Your task to perform on an android device: turn off notifications settings in the gmail app Image 0: 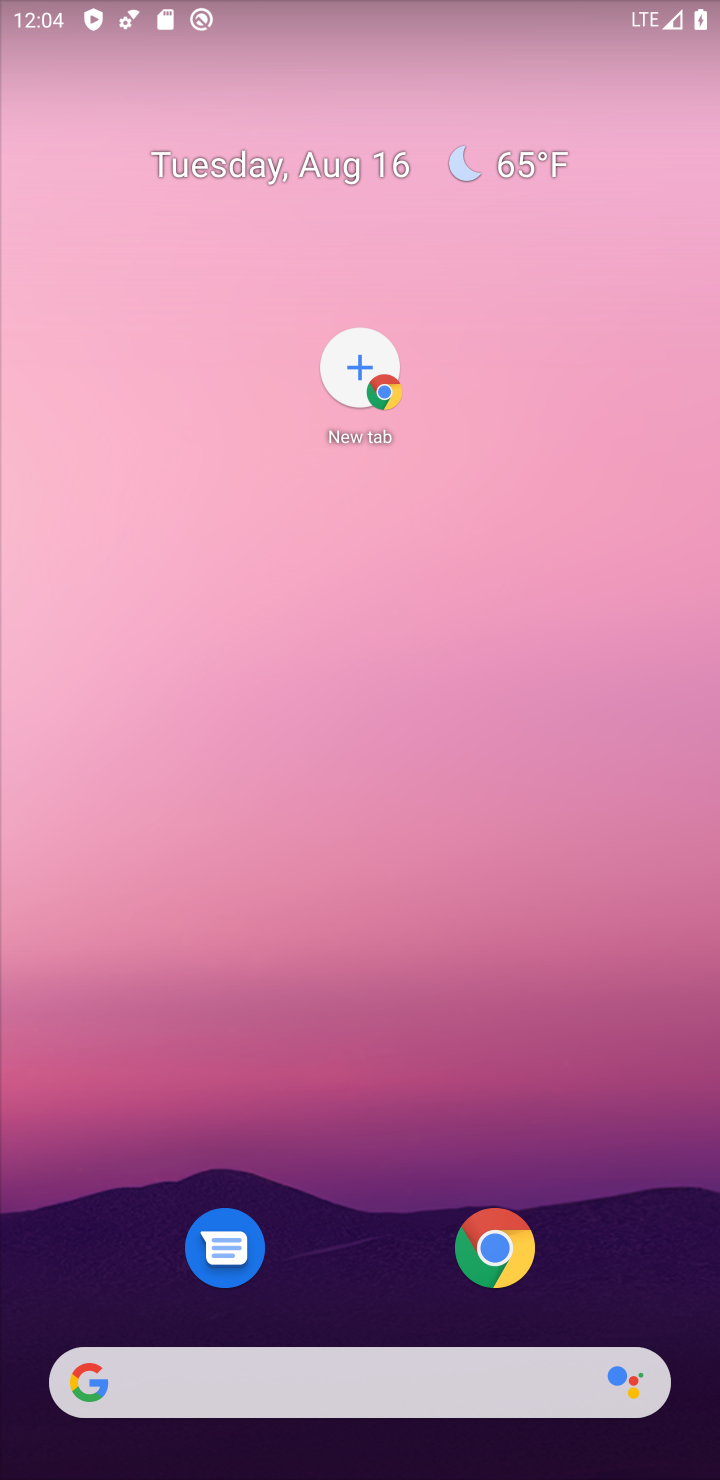
Step 0: click (685, 89)
Your task to perform on an android device: turn off notifications settings in the gmail app Image 1: 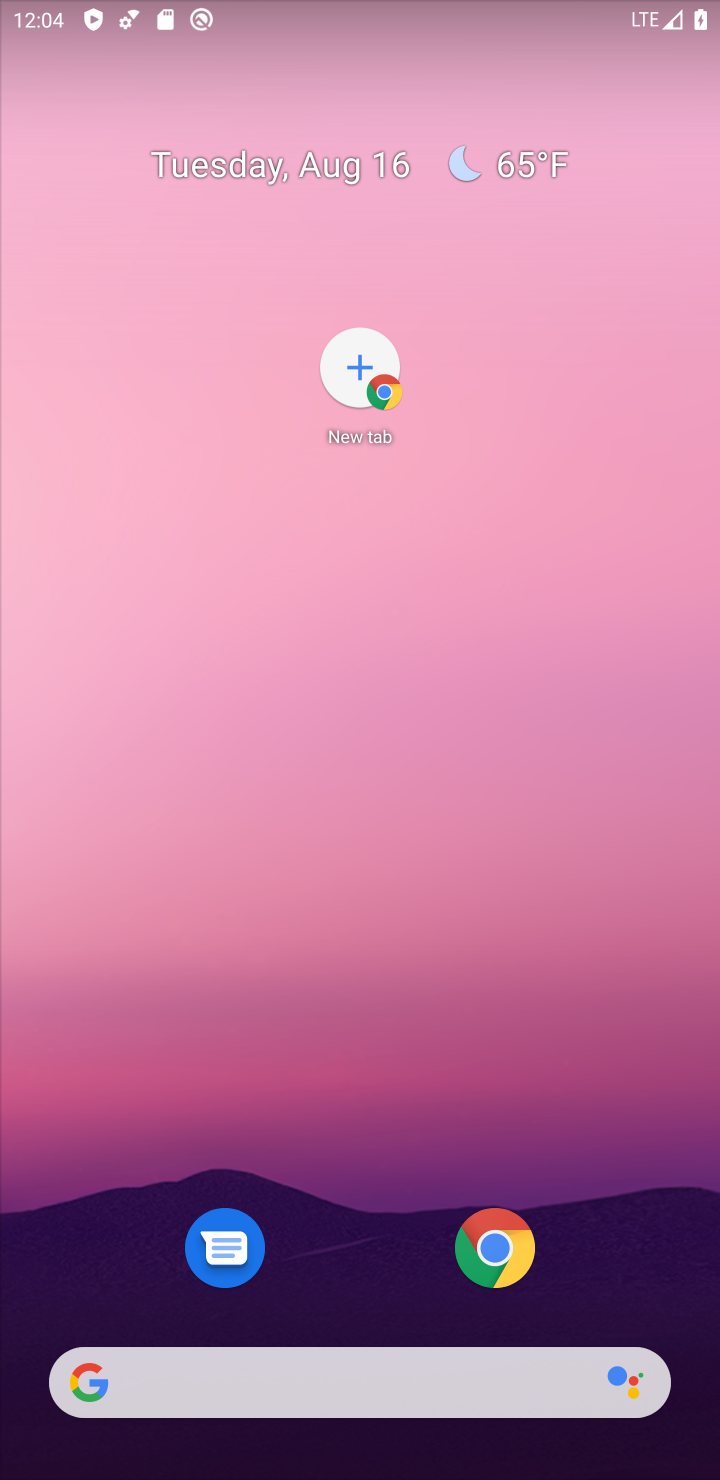
Step 1: click (494, 1281)
Your task to perform on an android device: turn off notifications settings in the gmail app Image 2: 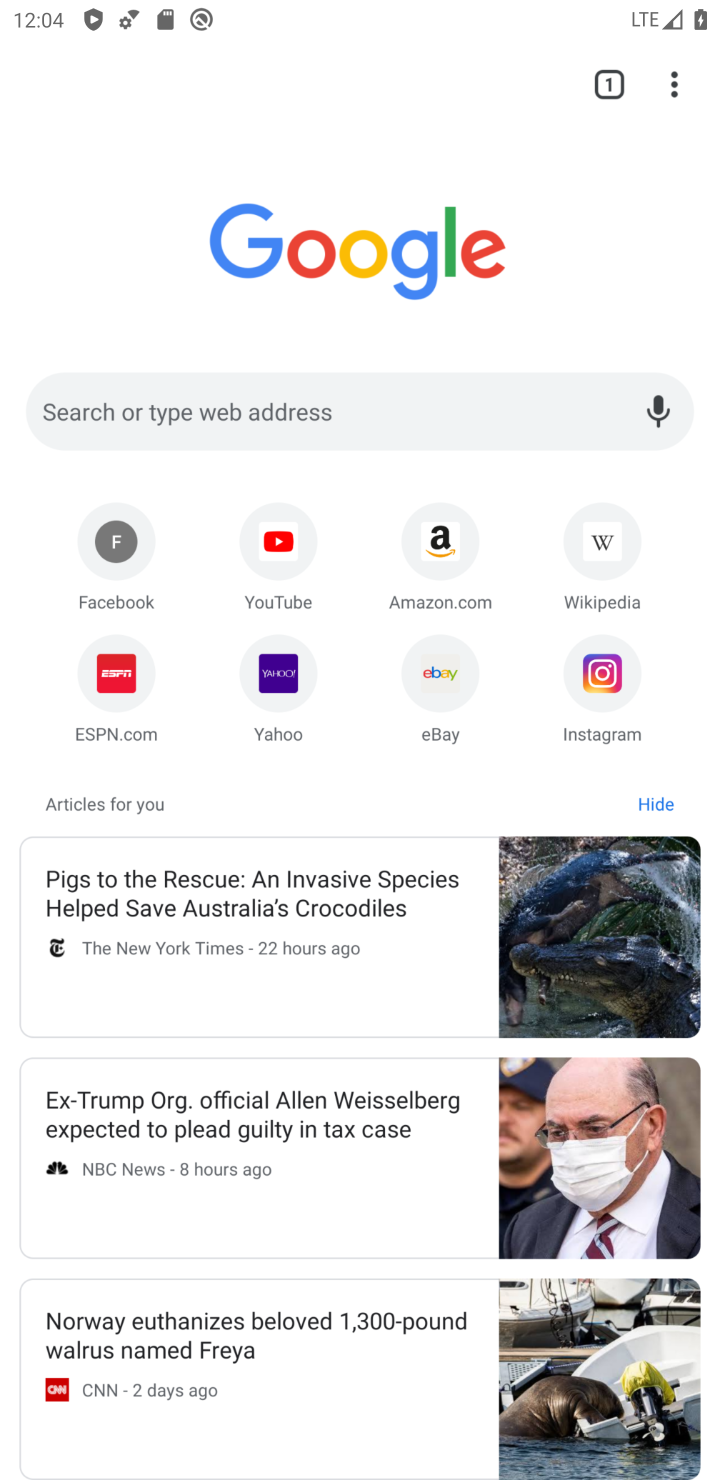
Step 2: press home button
Your task to perform on an android device: turn off notifications settings in the gmail app Image 3: 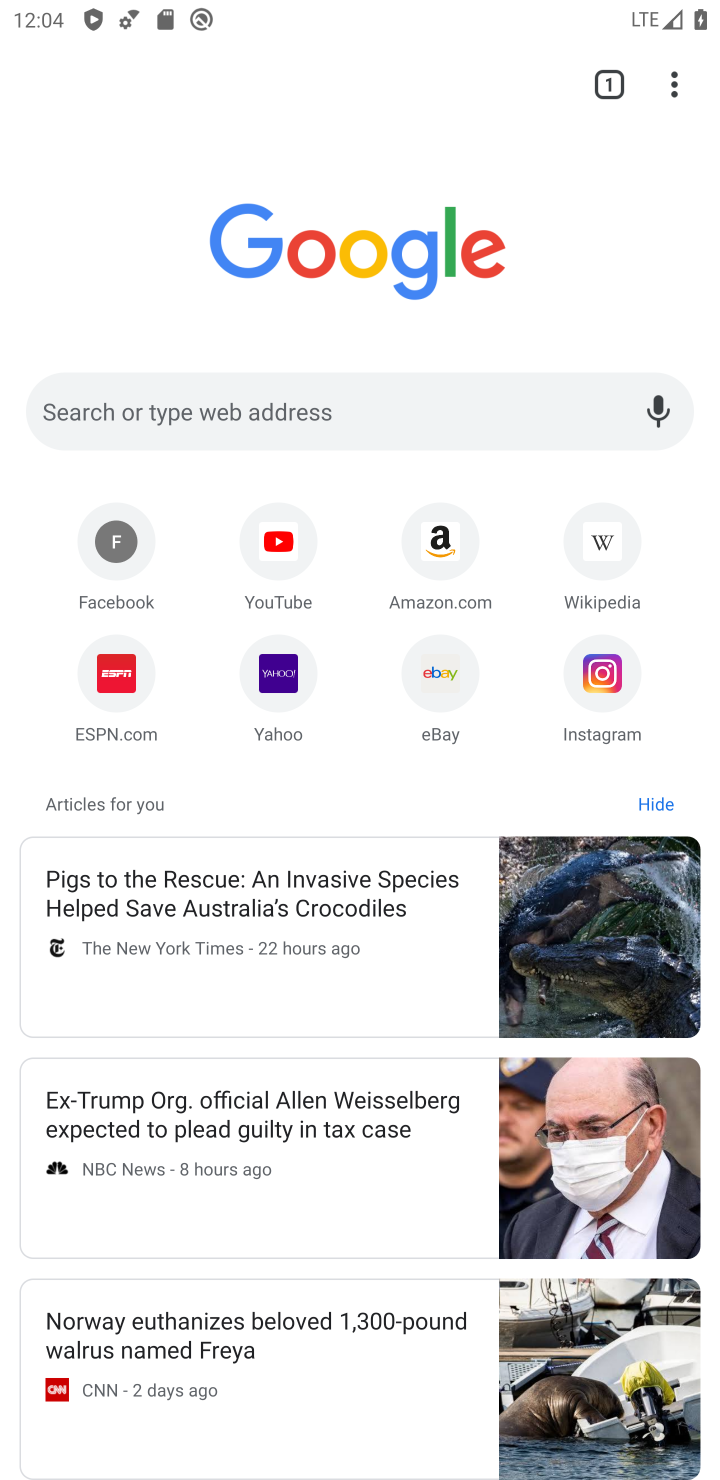
Step 3: press home button
Your task to perform on an android device: turn off notifications settings in the gmail app Image 4: 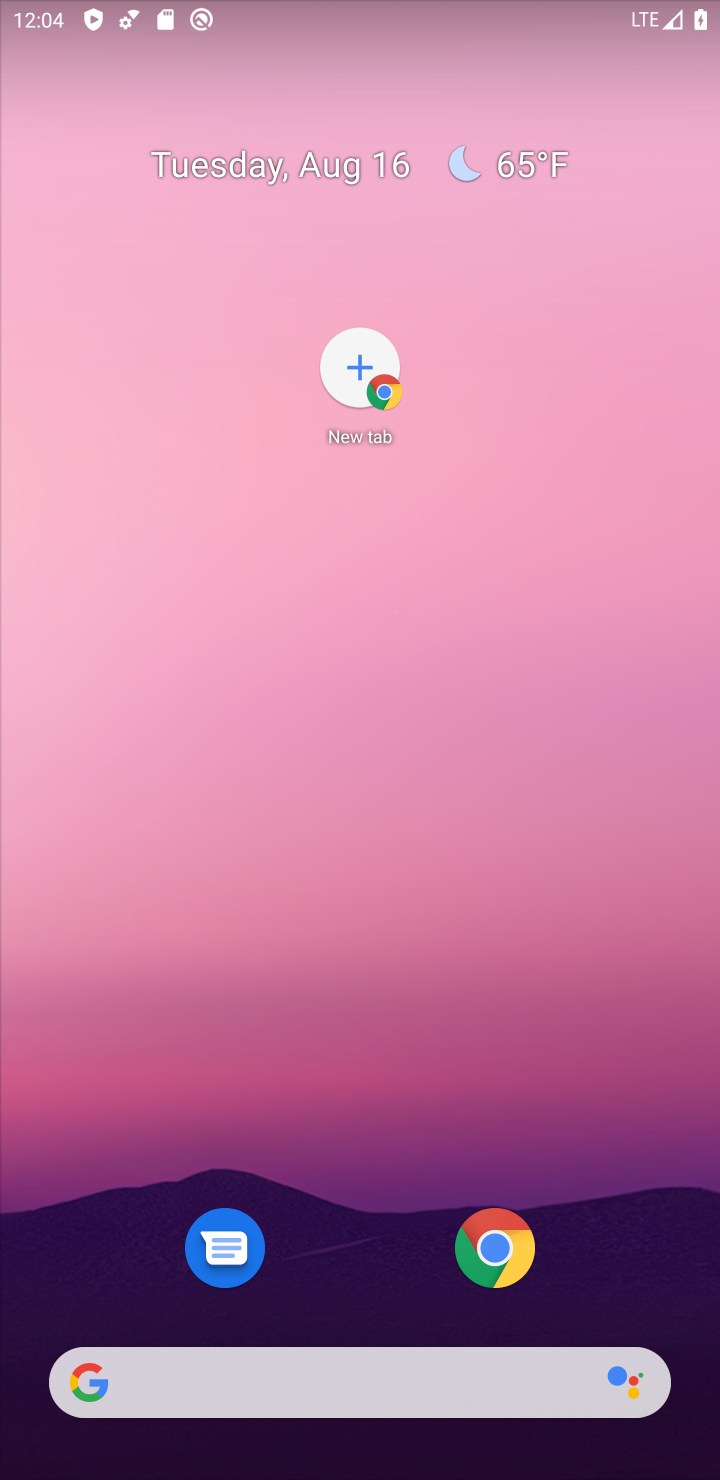
Step 4: click (490, 199)
Your task to perform on an android device: turn off notifications settings in the gmail app Image 5: 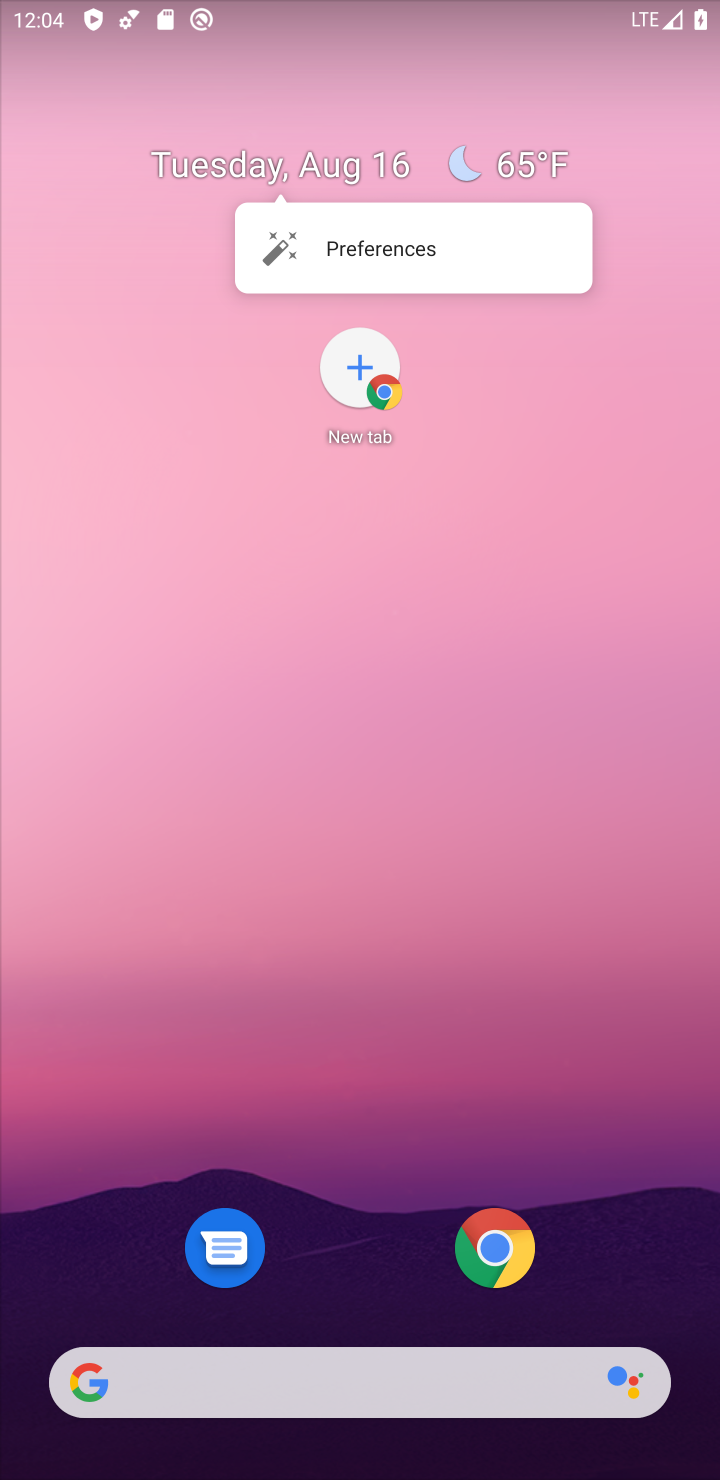
Step 5: drag from (371, 1314) to (257, 282)
Your task to perform on an android device: turn off notifications settings in the gmail app Image 6: 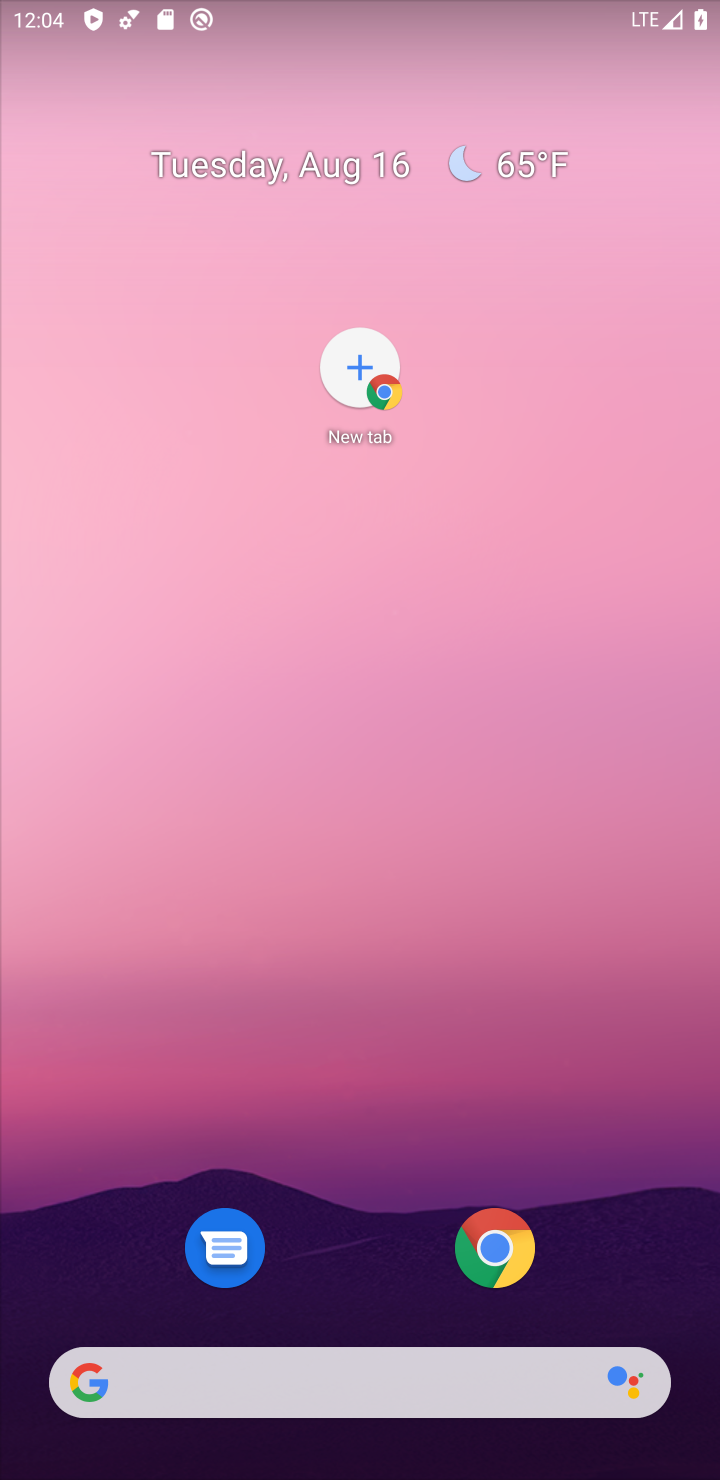
Step 6: drag from (399, 823) to (312, 53)
Your task to perform on an android device: turn off notifications settings in the gmail app Image 7: 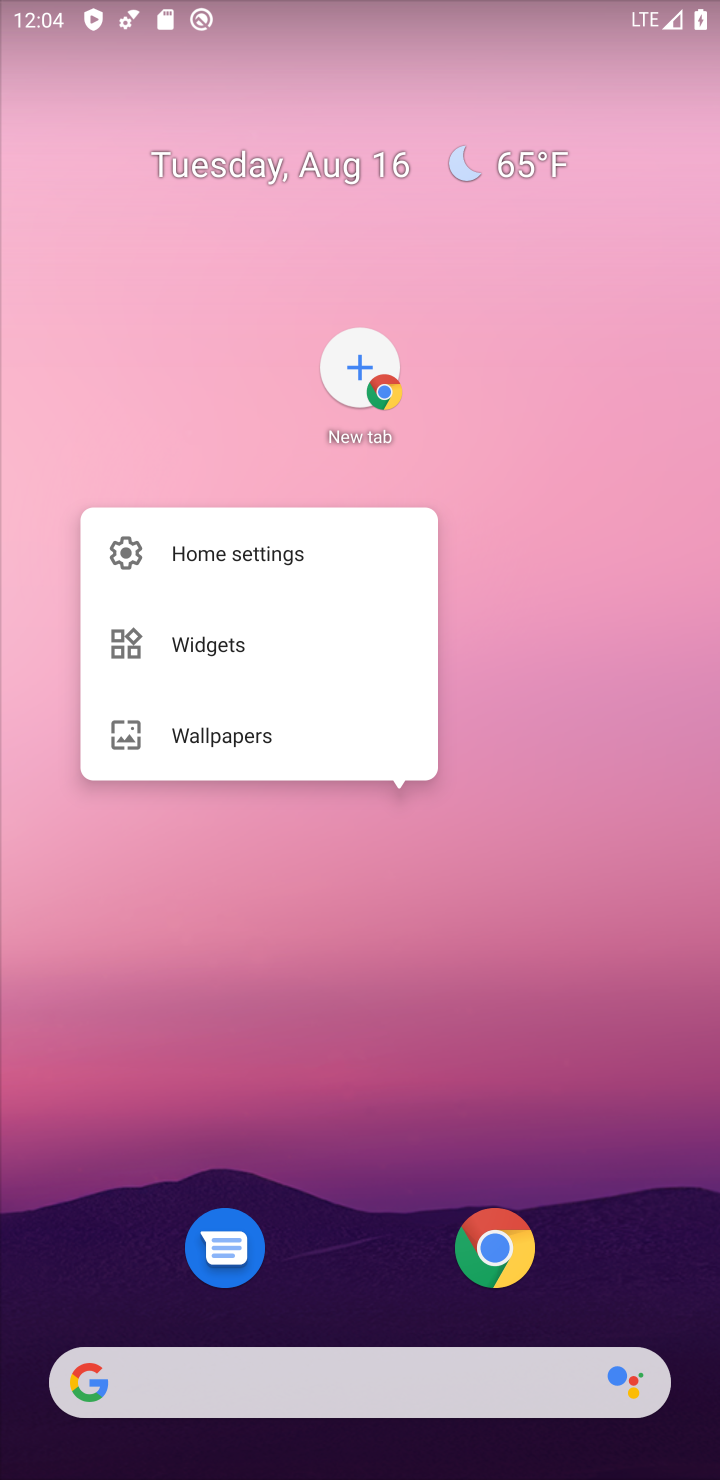
Step 7: click (434, 904)
Your task to perform on an android device: turn off notifications settings in the gmail app Image 8: 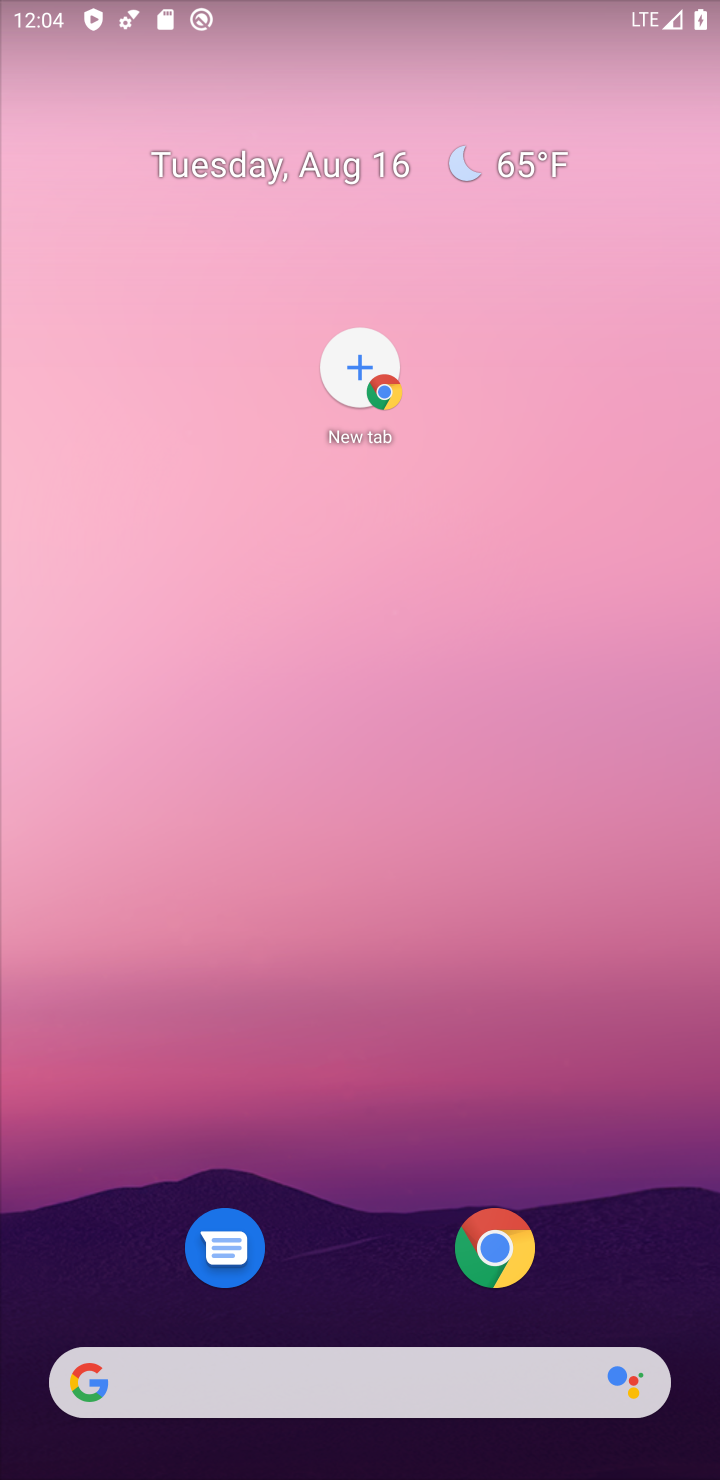
Step 8: task complete